Your task to perform on an android device: clear history in the chrome app Image 0: 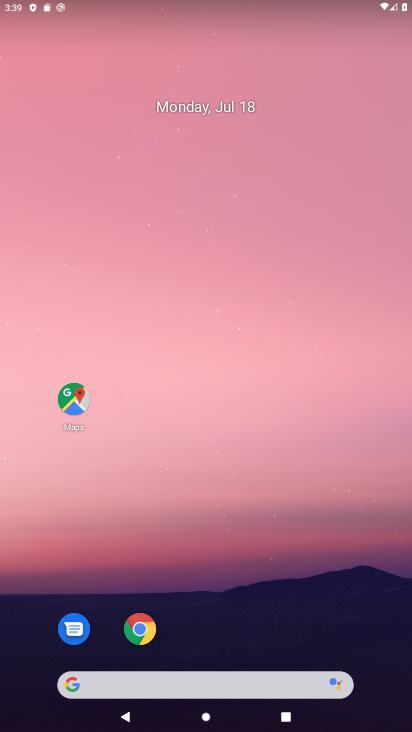
Step 0: drag from (216, 665) to (254, 198)
Your task to perform on an android device: clear history in the chrome app Image 1: 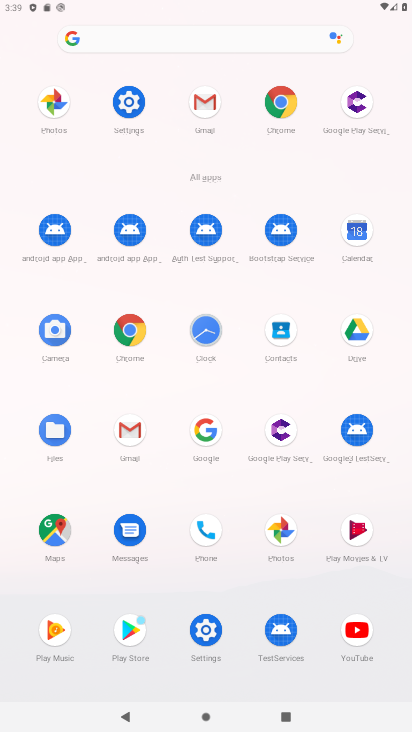
Step 1: click (138, 336)
Your task to perform on an android device: clear history in the chrome app Image 2: 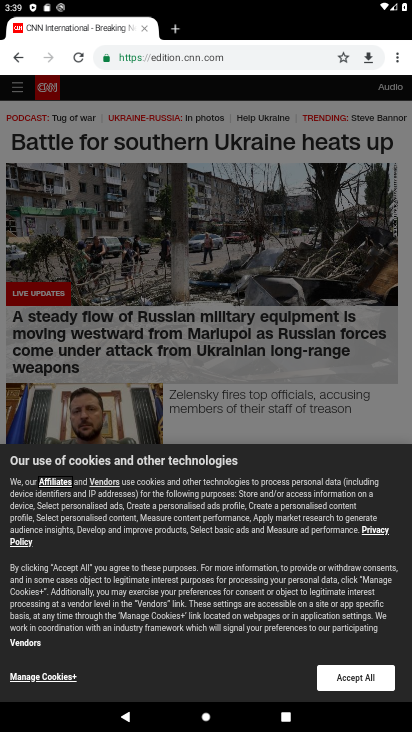
Step 2: drag from (398, 54) to (312, 170)
Your task to perform on an android device: clear history in the chrome app Image 3: 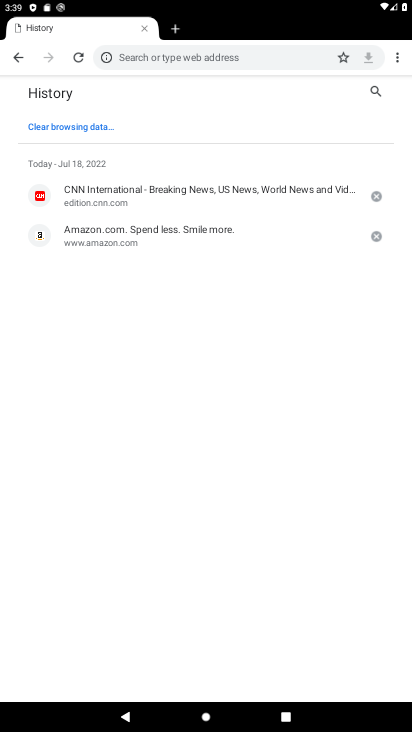
Step 3: click (85, 128)
Your task to perform on an android device: clear history in the chrome app Image 4: 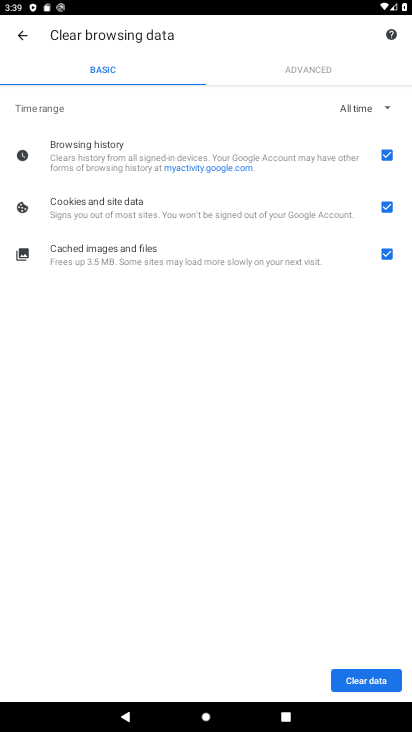
Step 4: click (385, 681)
Your task to perform on an android device: clear history in the chrome app Image 5: 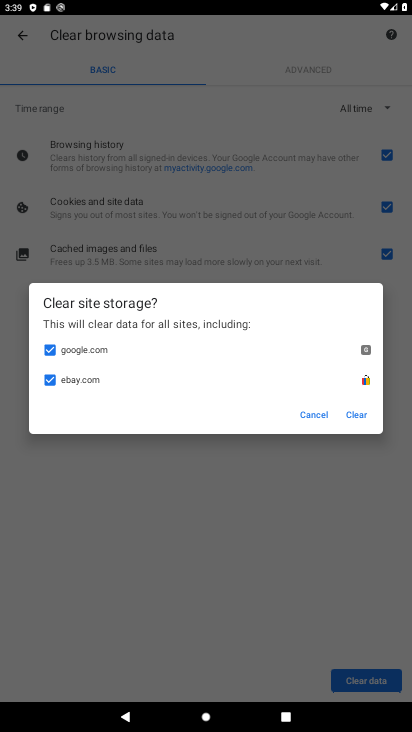
Step 5: click (351, 410)
Your task to perform on an android device: clear history in the chrome app Image 6: 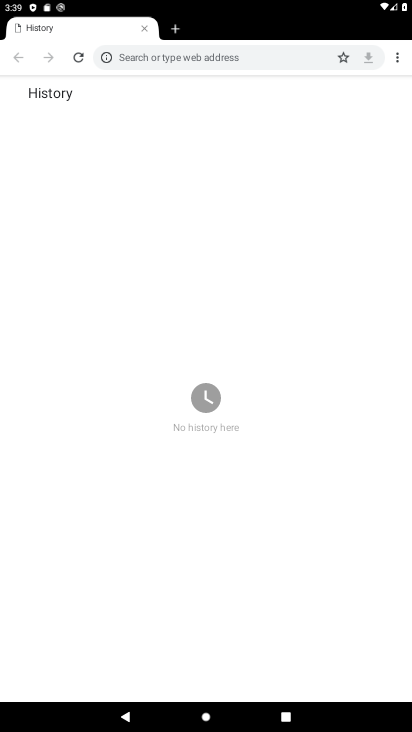
Step 6: task complete